Your task to perform on an android device: Toggle the flashlight Image 0: 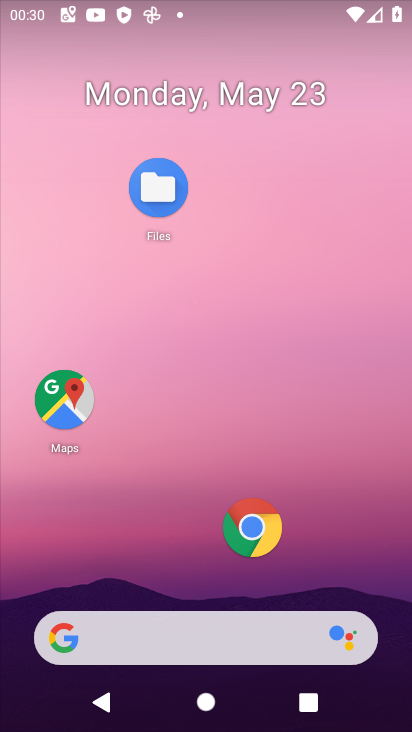
Step 0: drag from (185, 549) to (235, 16)
Your task to perform on an android device: Toggle the flashlight Image 1: 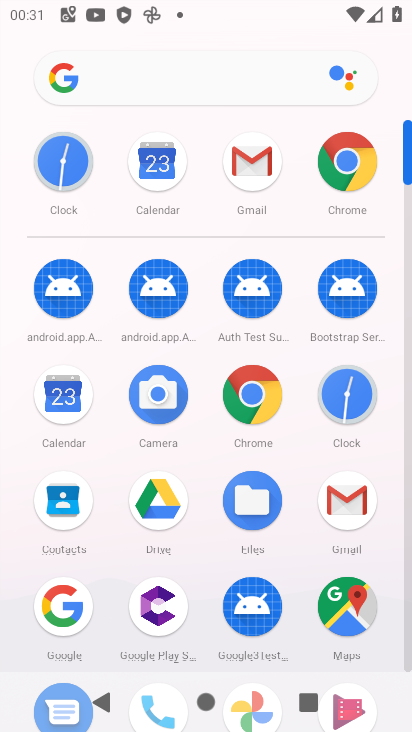
Step 1: drag from (195, 618) to (179, 171)
Your task to perform on an android device: Toggle the flashlight Image 2: 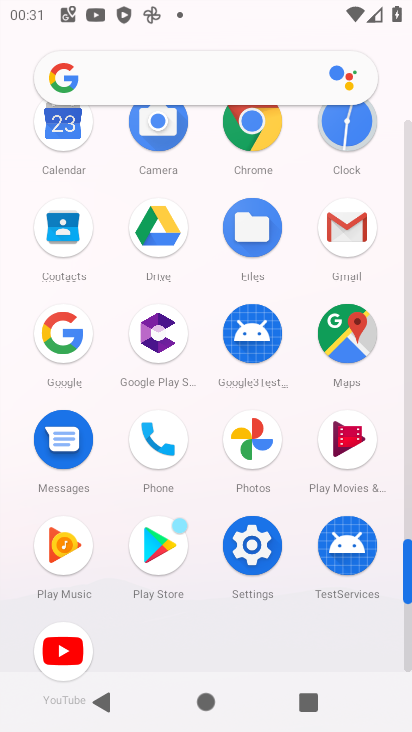
Step 2: click (259, 549)
Your task to perform on an android device: Toggle the flashlight Image 3: 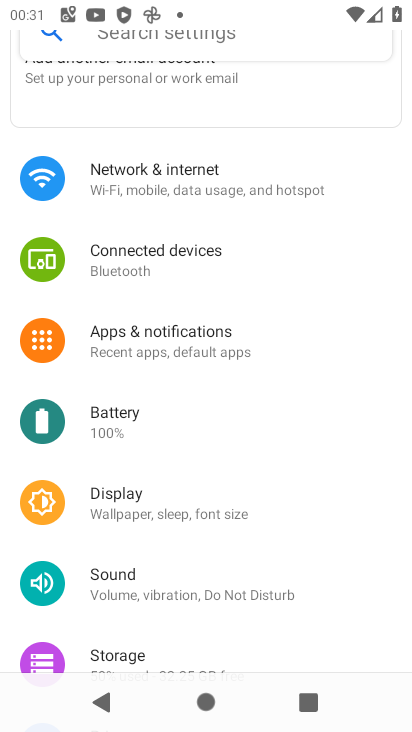
Step 3: click (155, 345)
Your task to perform on an android device: Toggle the flashlight Image 4: 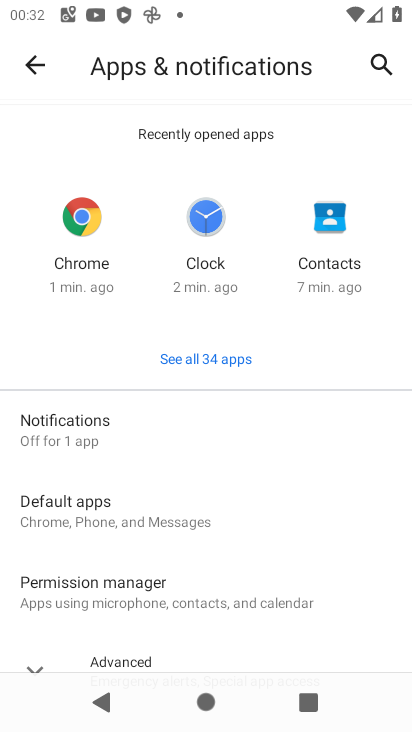
Step 4: click (28, 63)
Your task to perform on an android device: Toggle the flashlight Image 5: 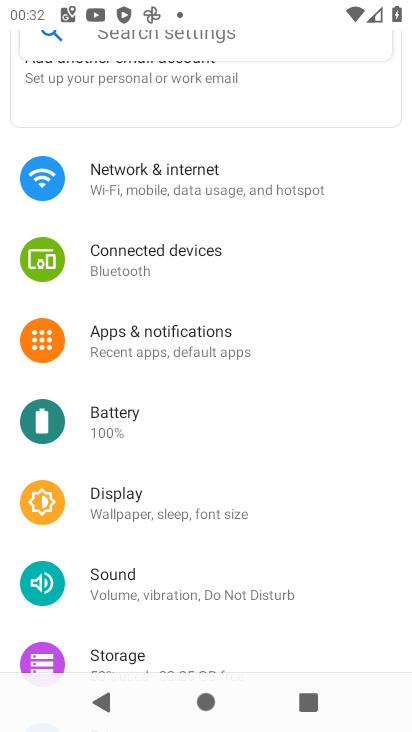
Step 5: click (155, 163)
Your task to perform on an android device: Toggle the flashlight Image 6: 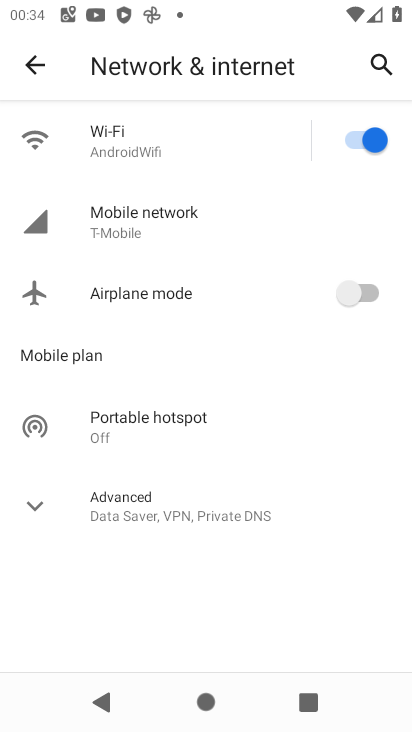
Step 6: task complete